Your task to perform on an android device: Turn on the flashlight Image 0: 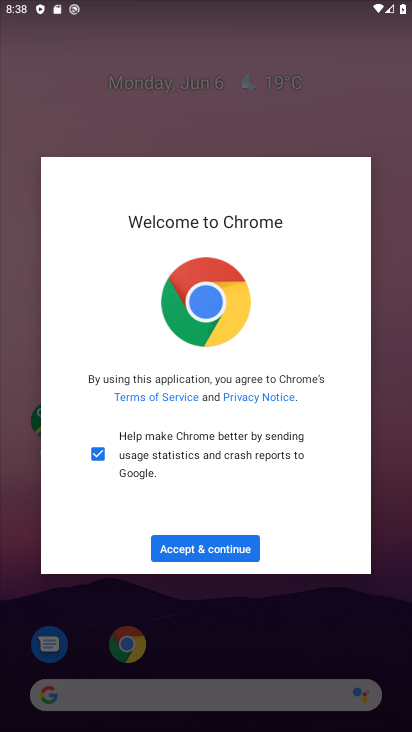
Step 0: press home button
Your task to perform on an android device: Turn on the flashlight Image 1: 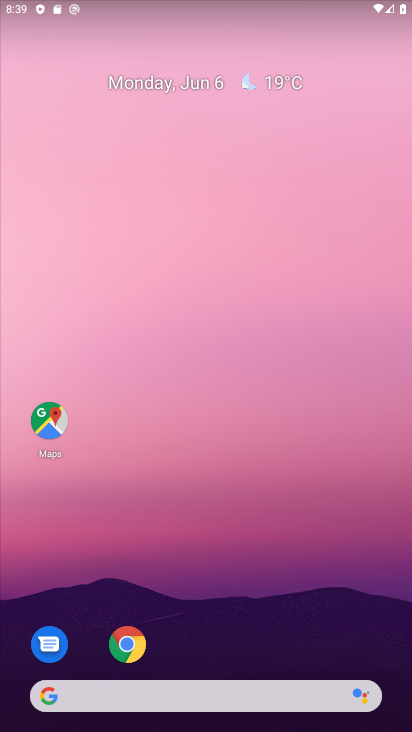
Step 1: drag from (262, 622) to (174, 8)
Your task to perform on an android device: Turn on the flashlight Image 2: 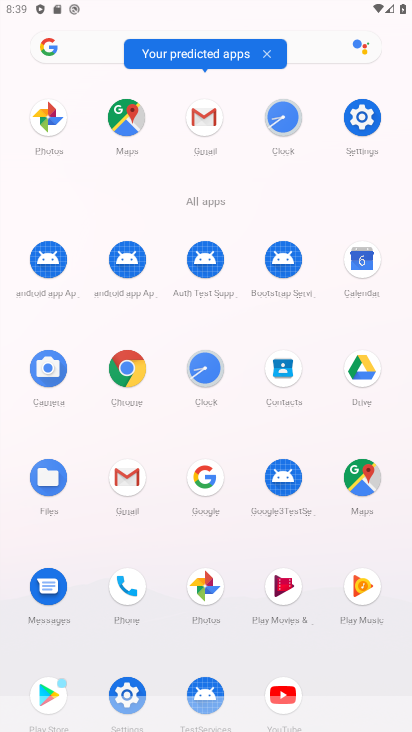
Step 2: click (367, 106)
Your task to perform on an android device: Turn on the flashlight Image 3: 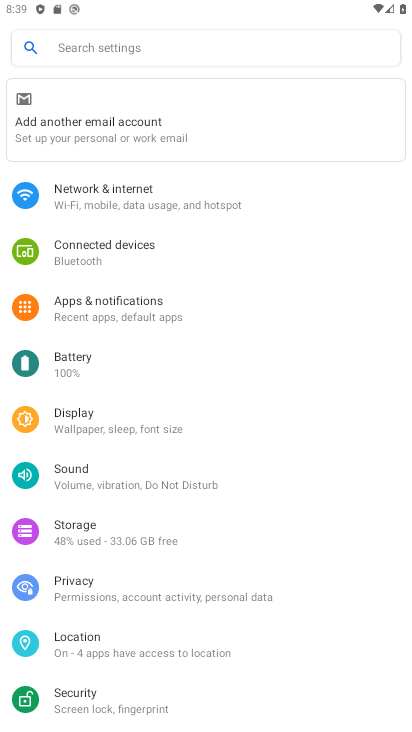
Step 3: task complete